Your task to perform on an android device: clear all cookies in the chrome app Image 0: 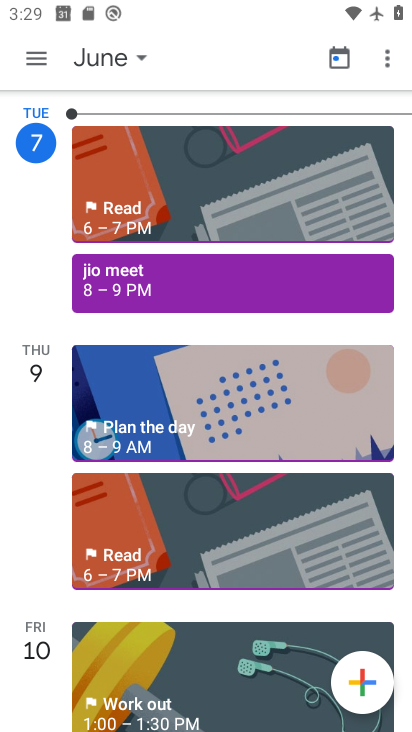
Step 0: press home button
Your task to perform on an android device: clear all cookies in the chrome app Image 1: 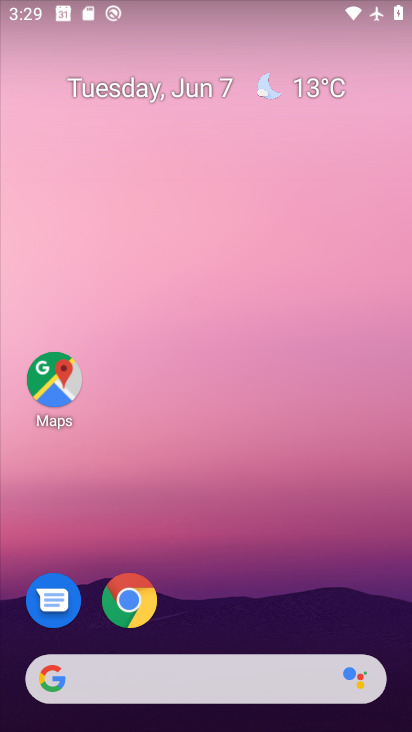
Step 1: drag from (372, 539) to (385, 100)
Your task to perform on an android device: clear all cookies in the chrome app Image 2: 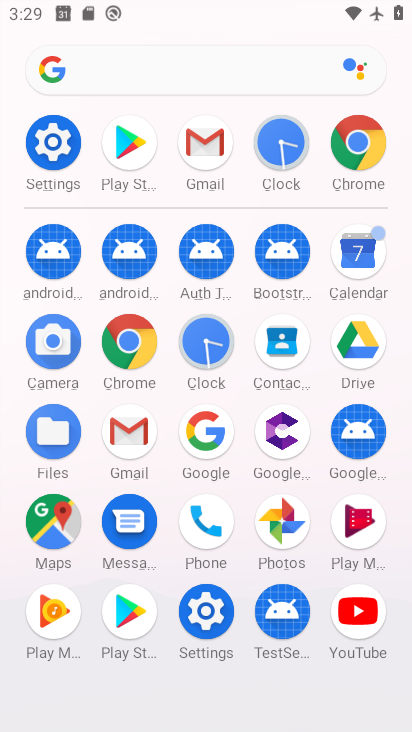
Step 2: click (129, 341)
Your task to perform on an android device: clear all cookies in the chrome app Image 3: 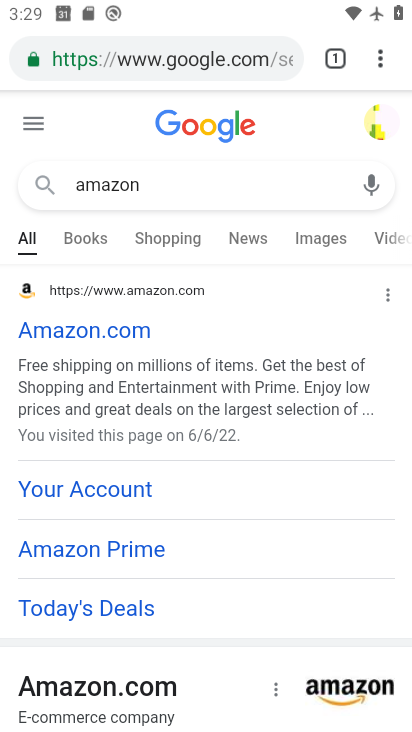
Step 3: drag from (387, 53) to (189, 347)
Your task to perform on an android device: clear all cookies in the chrome app Image 4: 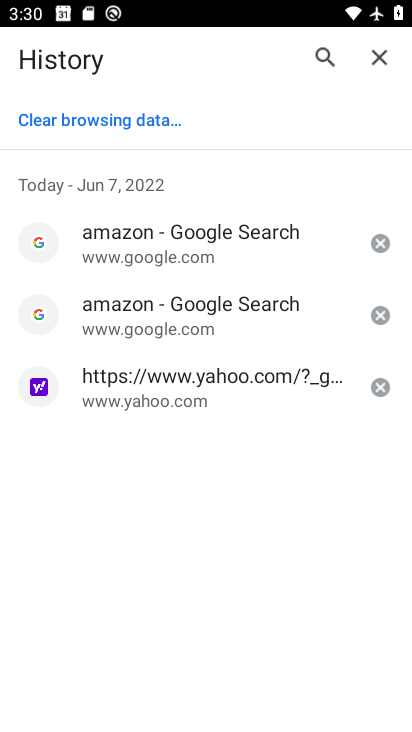
Step 4: click (148, 121)
Your task to perform on an android device: clear all cookies in the chrome app Image 5: 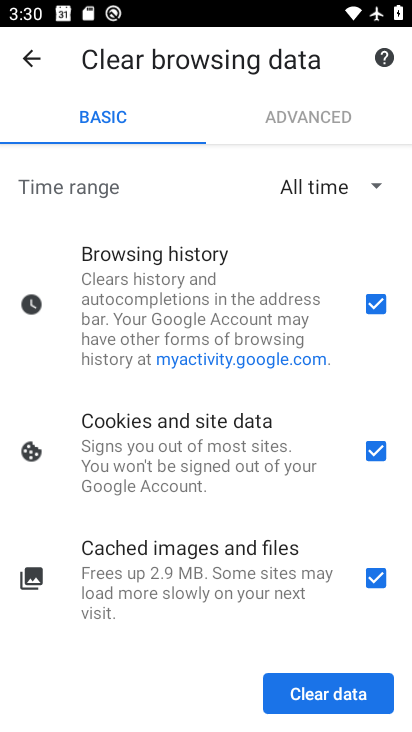
Step 5: click (370, 697)
Your task to perform on an android device: clear all cookies in the chrome app Image 6: 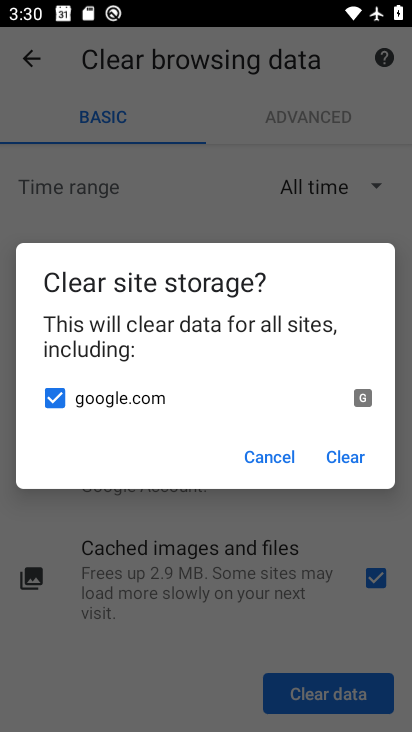
Step 6: click (360, 458)
Your task to perform on an android device: clear all cookies in the chrome app Image 7: 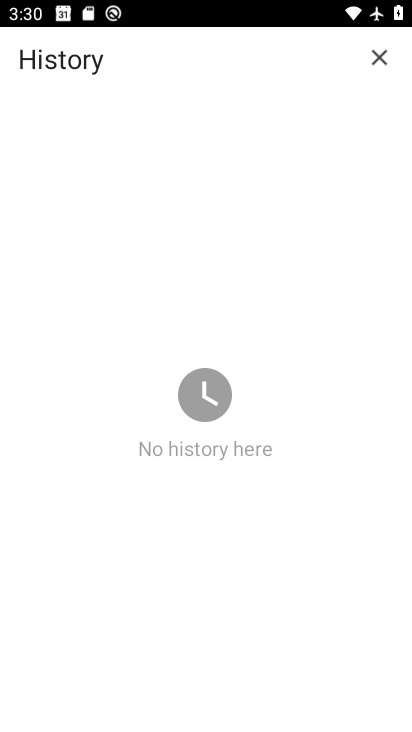
Step 7: task complete